Your task to perform on an android device: Clear the cart on walmart. Add macbook to the cart on walmart, then select checkout. Image 0: 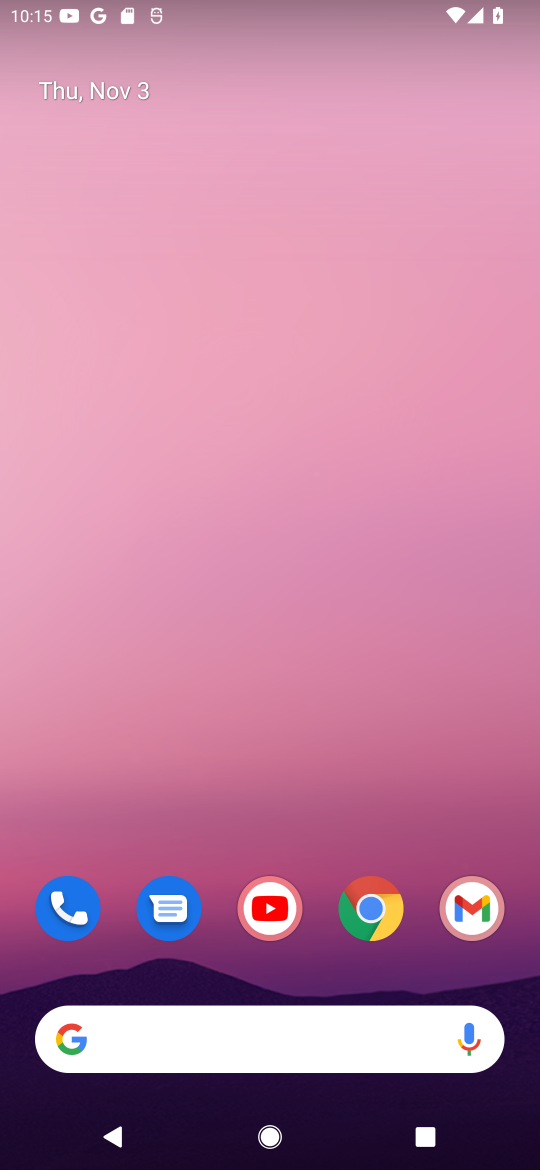
Step 0: click (377, 904)
Your task to perform on an android device: Clear the cart on walmart. Add macbook to the cart on walmart, then select checkout. Image 1: 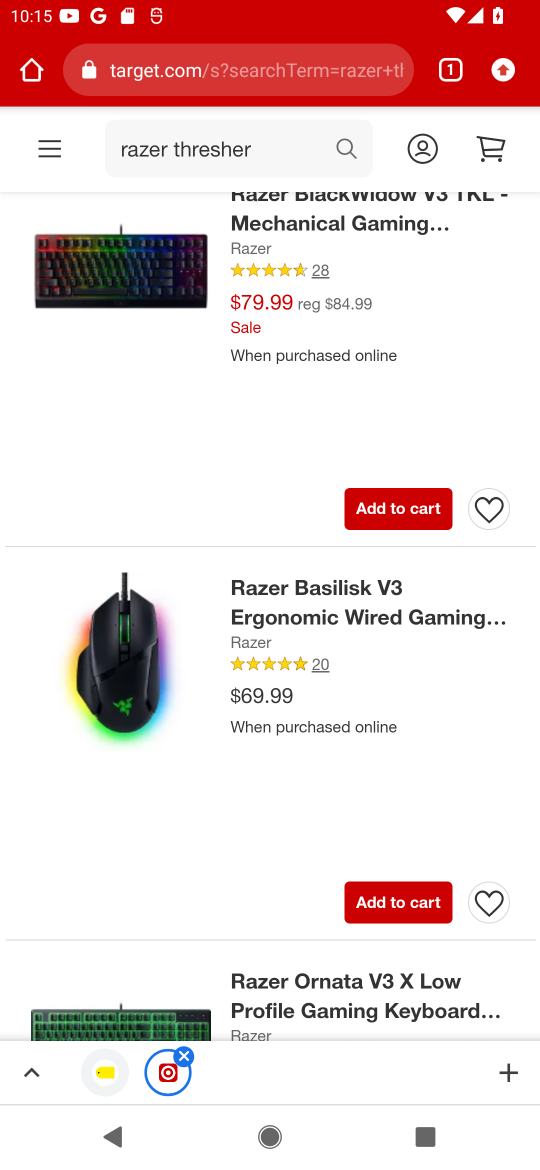
Step 1: click (21, 71)
Your task to perform on an android device: Clear the cart on walmart. Add macbook to the cart on walmart, then select checkout. Image 2: 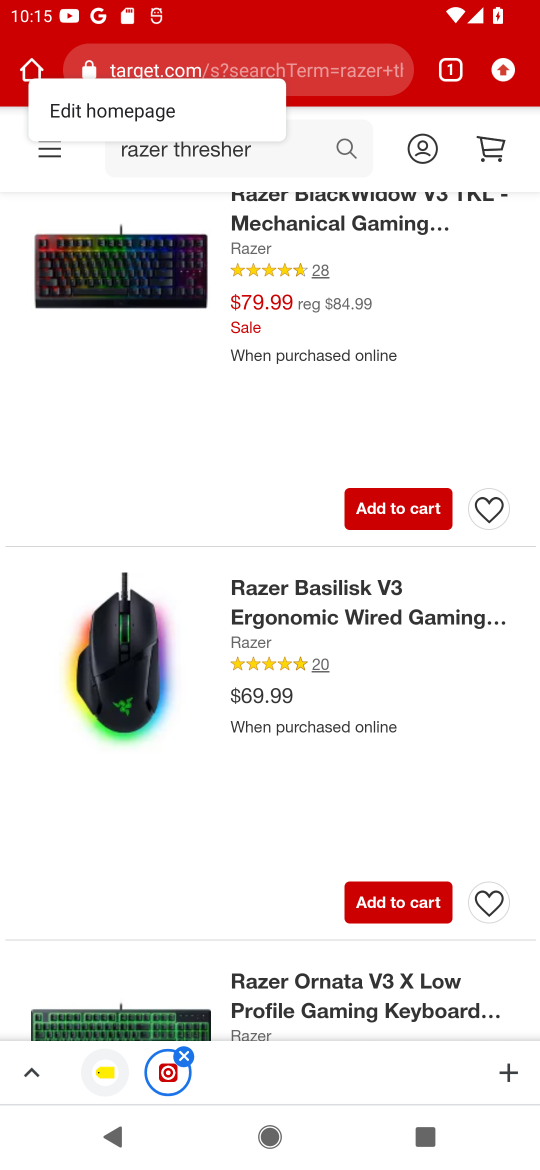
Step 2: click (362, 66)
Your task to perform on an android device: Clear the cart on walmart. Add macbook to the cart on walmart, then select checkout. Image 3: 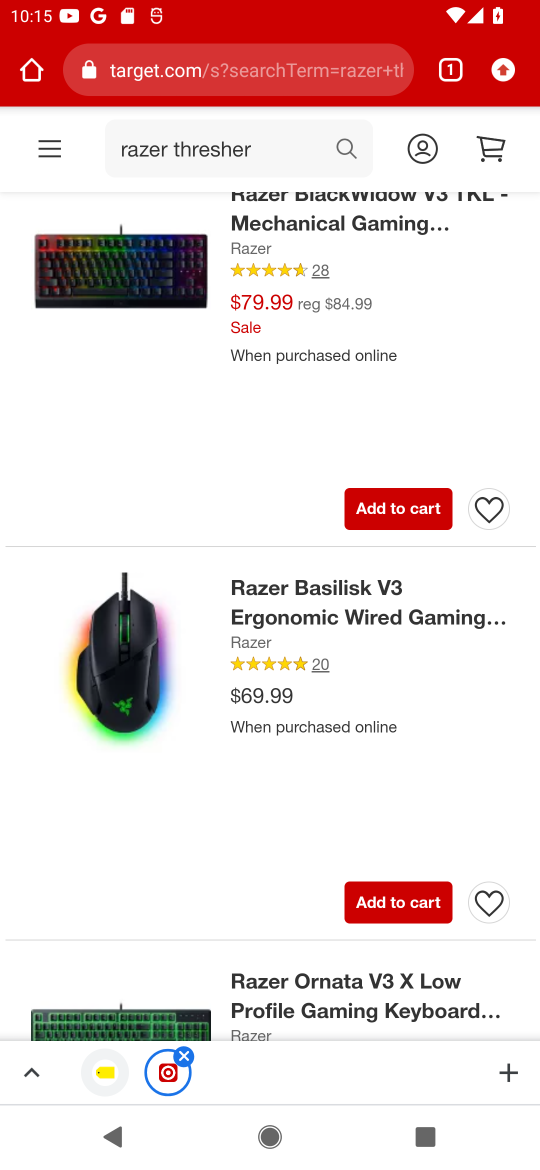
Step 3: click (286, 62)
Your task to perform on an android device: Clear the cart on walmart. Add macbook to the cart on walmart, then select checkout. Image 4: 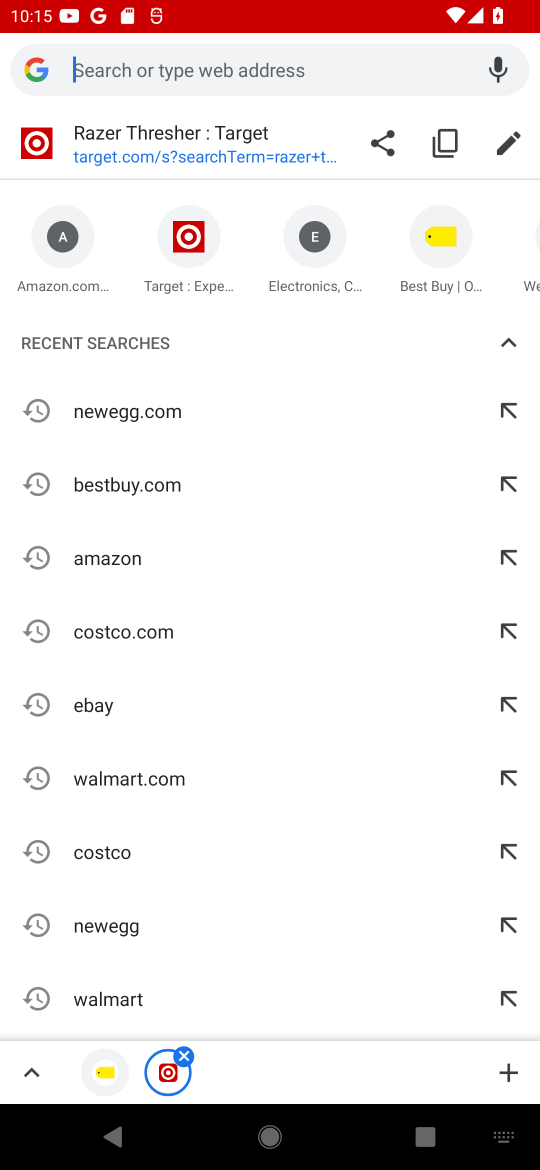
Step 4: click (170, 777)
Your task to perform on an android device: Clear the cart on walmart. Add macbook to the cart on walmart, then select checkout. Image 5: 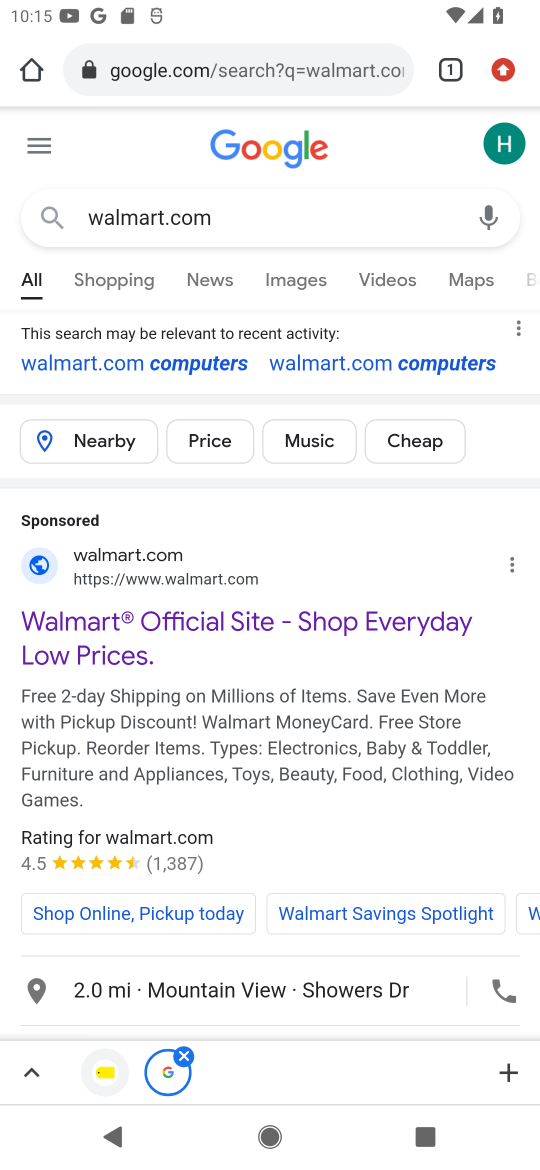
Step 5: click (170, 777)
Your task to perform on an android device: Clear the cart on walmart. Add macbook to the cart on walmart, then select checkout. Image 6: 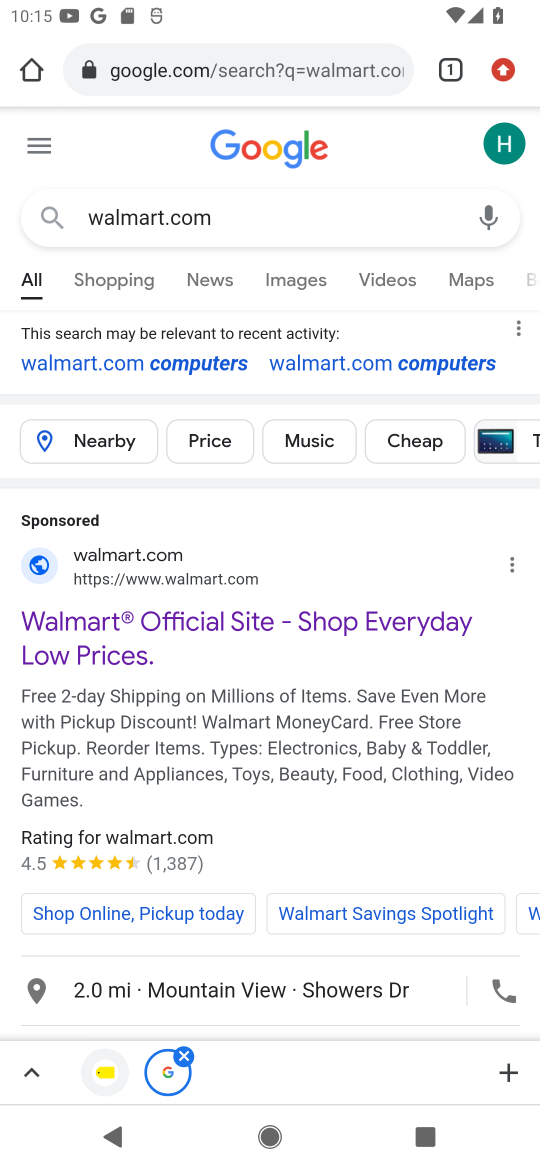
Step 6: click (219, 580)
Your task to perform on an android device: Clear the cart on walmart. Add macbook to the cart on walmart, then select checkout. Image 7: 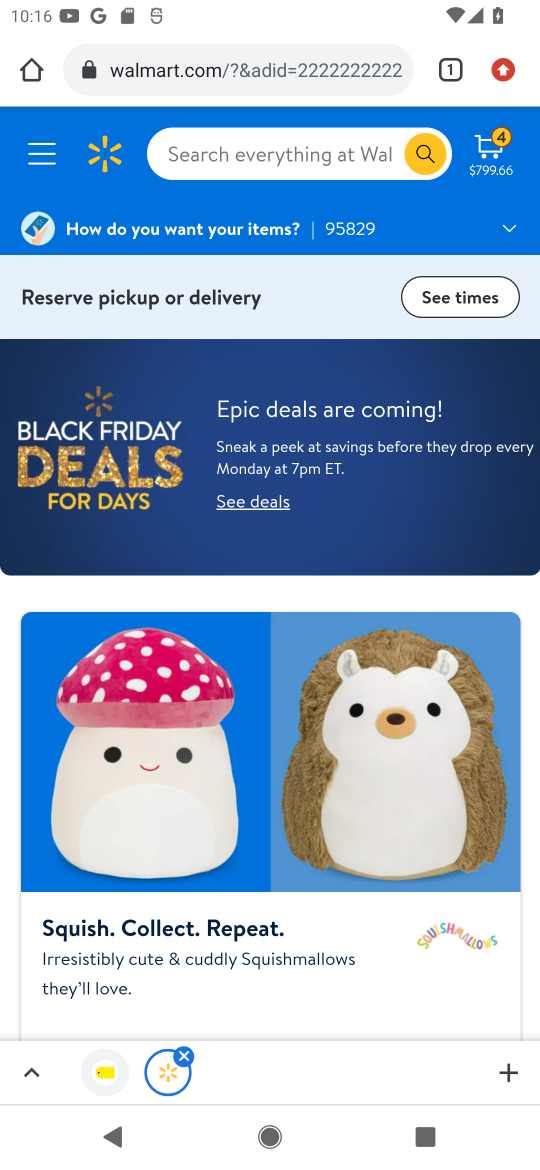
Step 7: click (368, 146)
Your task to perform on an android device: Clear the cart on walmart. Add macbook to the cart on walmart, then select checkout. Image 8: 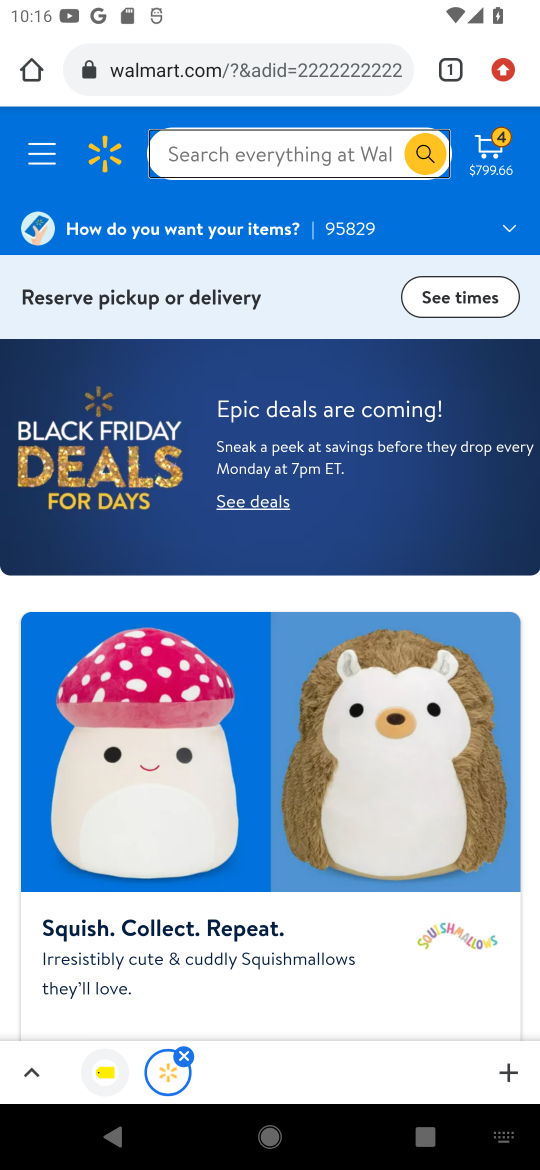
Step 8: type "macbook"
Your task to perform on an android device: Clear the cart on walmart. Add macbook to the cart on walmart, then select checkout. Image 9: 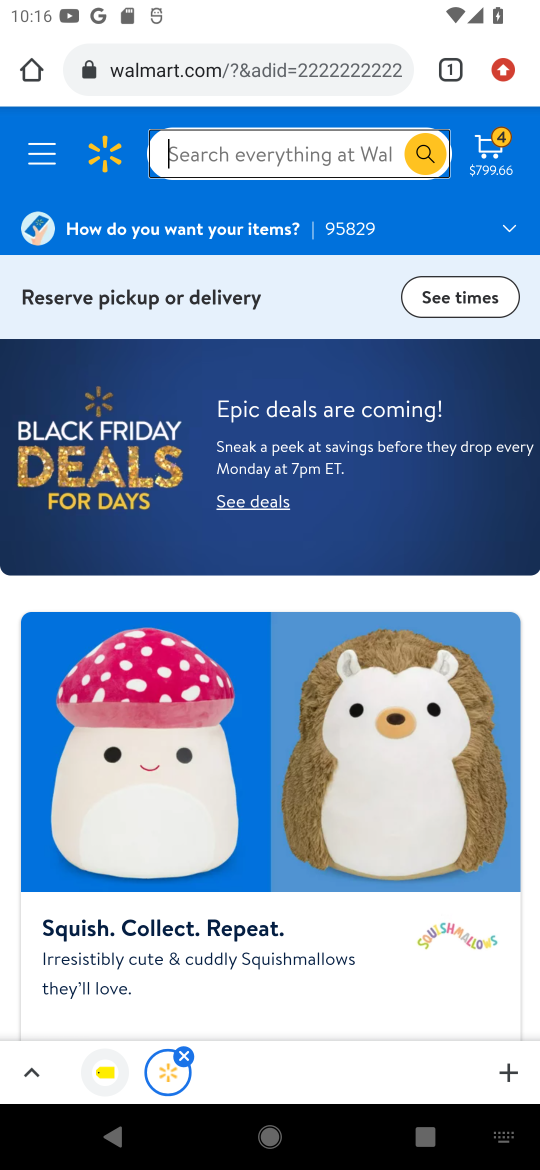
Step 9: press enter
Your task to perform on an android device: Clear the cart on walmart. Add macbook to the cart on walmart, then select checkout. Image 10: 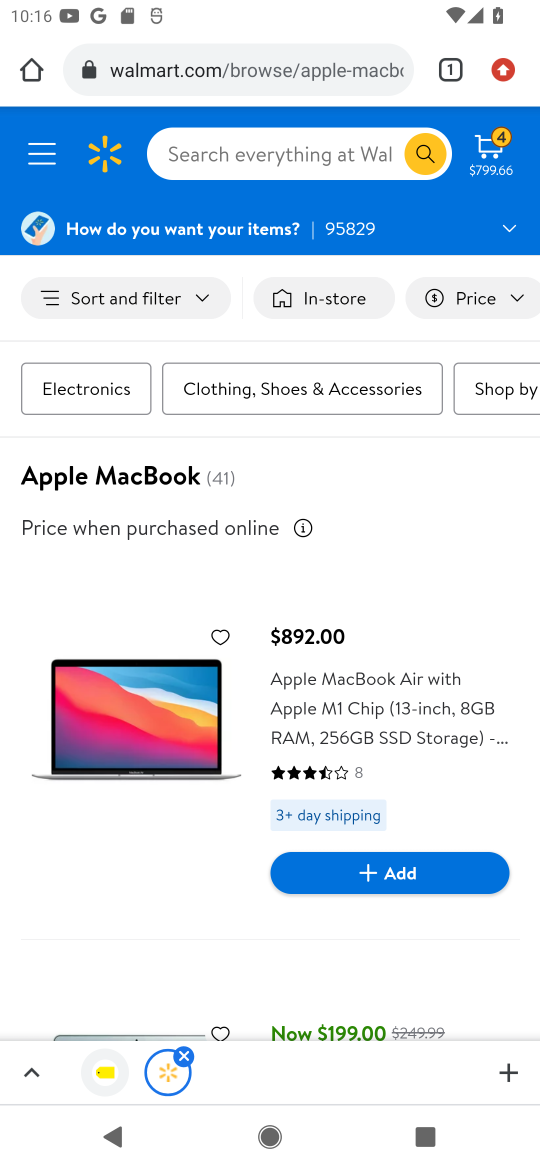
Step 10: click (118, 751)
Your task to perform on an android device: Clear the cart on walmart. Add macbook to the cart on walmart, then select checkout. Image 11: 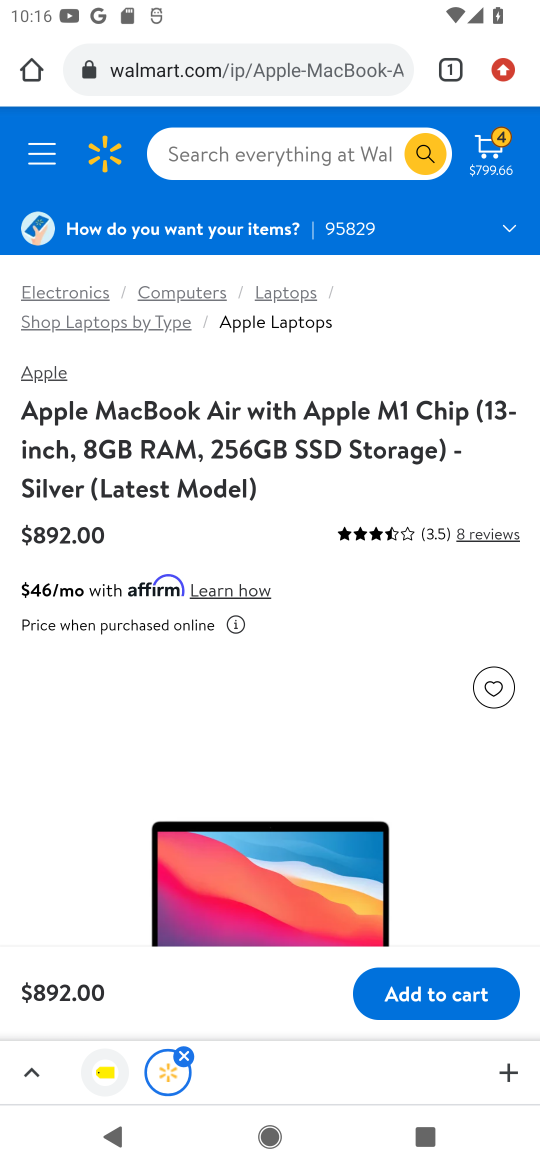
Step 11: click (461, 997)
Your task to perform on an android device: Clear the cart on walmart. Add macbook to the cart on walmart, then select checkout. Image 12: 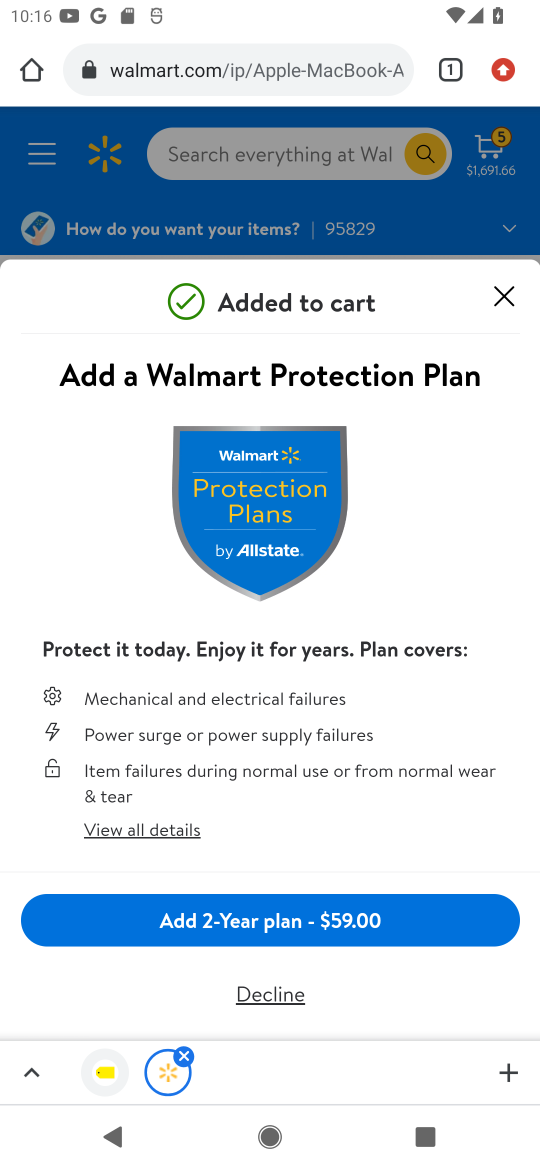
Step 12: click (503, 294)
Your task to perform on an android device: Clear the cart on walmart. Add macbook to the cart on walmart, then select checkout. Image 13: 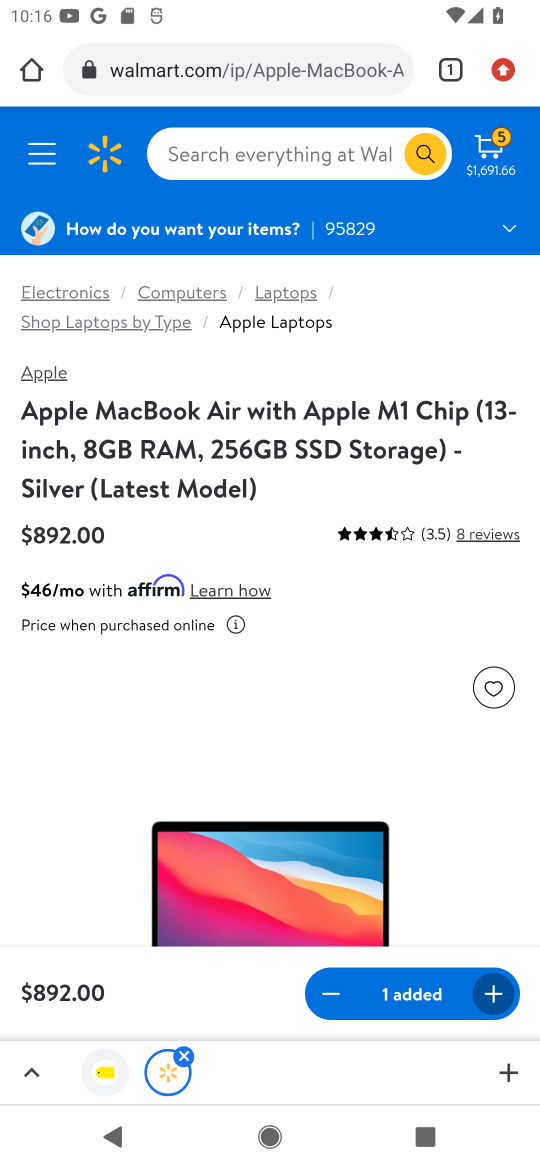
Step 13: click (498, 155)
Your task to perform on an android device: Clear the cart on walmart. Add macbook to the cart on walmart, then select checkout. Image 14: 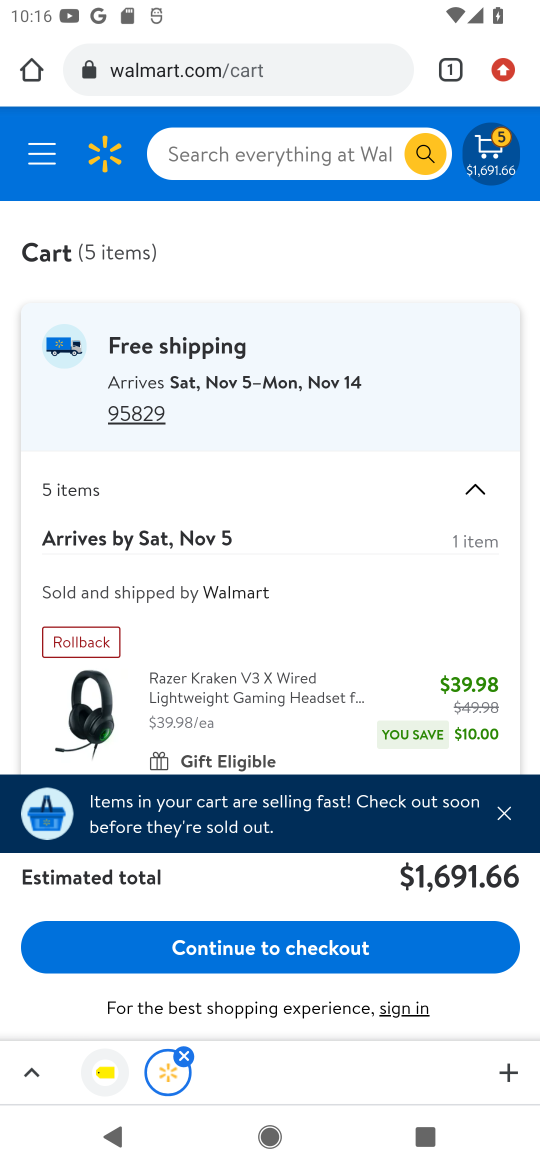
Step 14: click (386, 943)
Your task to perform on an android device: Clear the cart on walmart. Add macbook to the cart on walmart, then select checkout. Image 15: 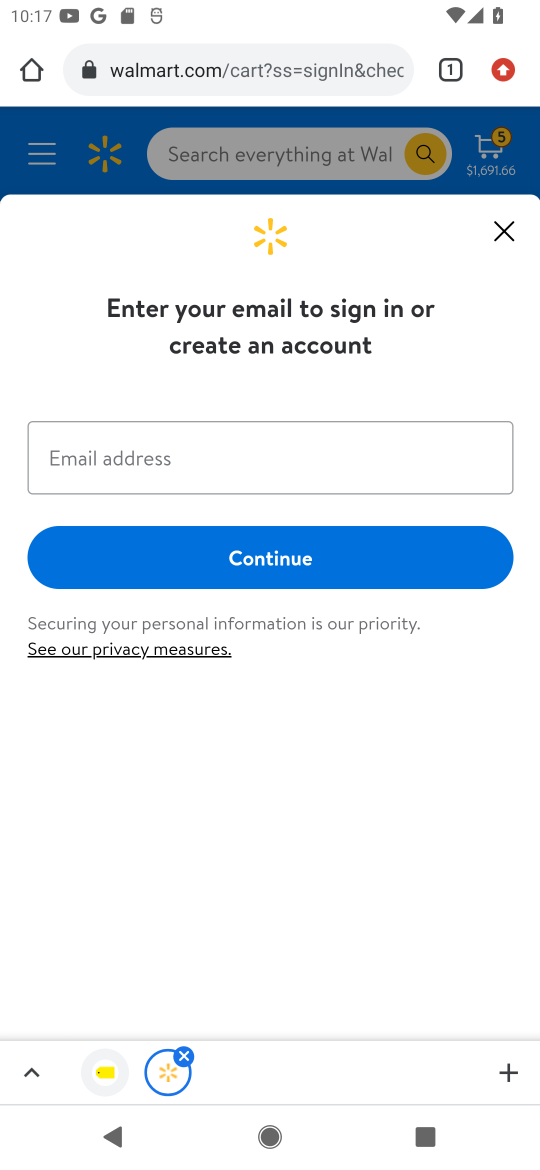
Step 15: task complete